Your task to perform on an android device: turn pop-ups off in chrome Image 0: 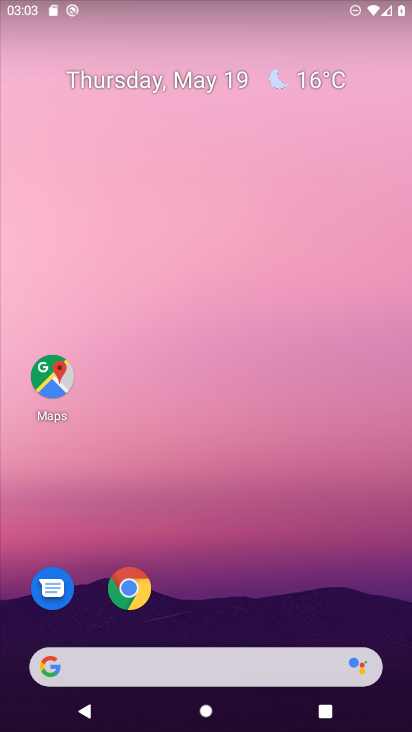
Step 0: click (126, 588)
Your task to perform on an android device: turn pop-ups off in chrome Image 1: 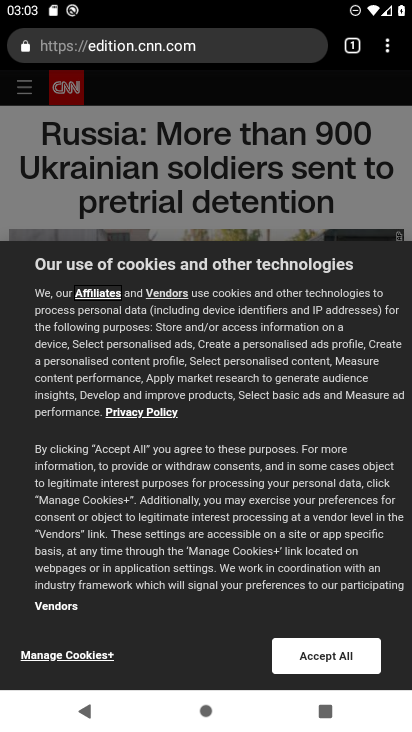
Step 1: drag from (391, 47) to (266, 509)
Your task to perform on an android device: turn pop-ups off in chrome Image 2: 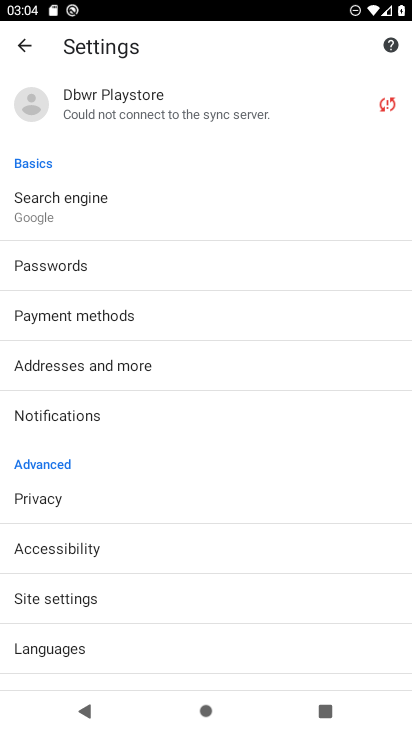
Step 2: click (63, 600)
Your task to perform on an android device: turn pop-ups off in chrome Image 3: 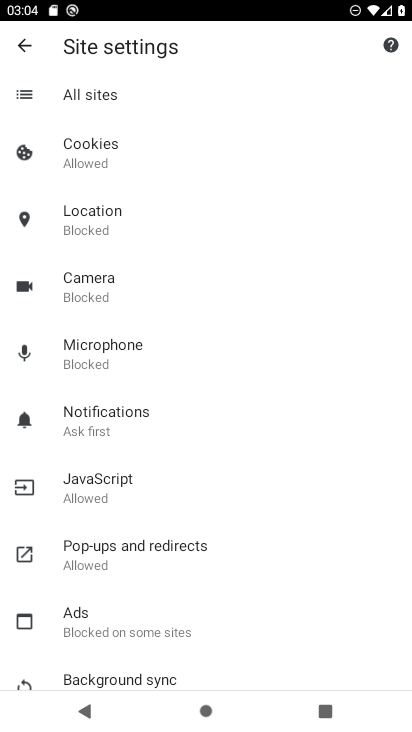
Step 3: click (92, 553)
Your task to perform on an android device: turn pop-ups off in chrome Image 4: 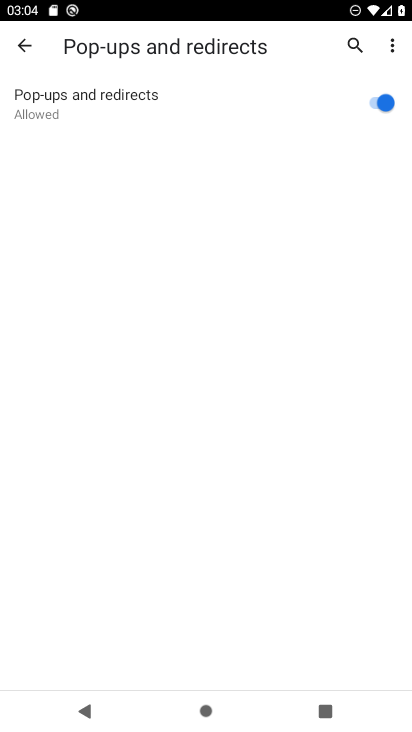
Step 4: click (368, 104)
Your task to perform on an android device: turn pop-ups off in chrome Image 5: 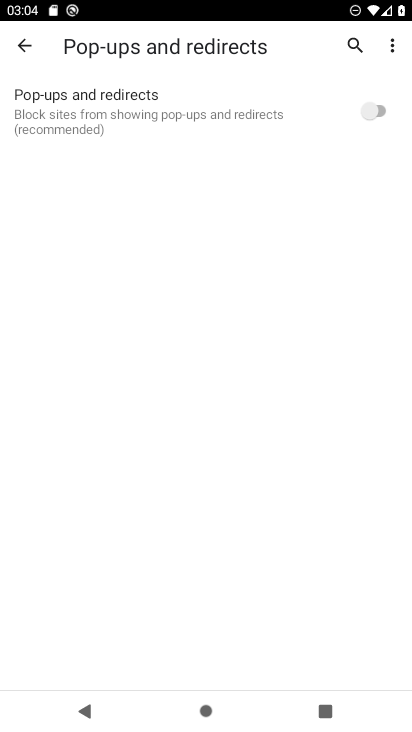
Step 5: task complete